Your task to perform on an android device: Toggle the flashlight Image 0: 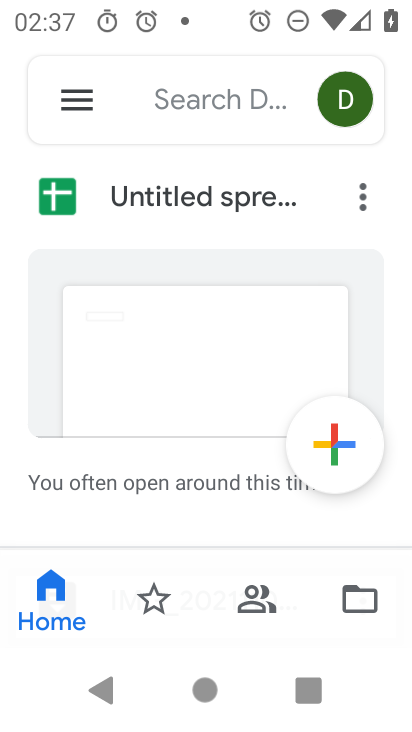
Step 0: press home button
Your task to perform on an android device: Toggle the flashlight Image 1: 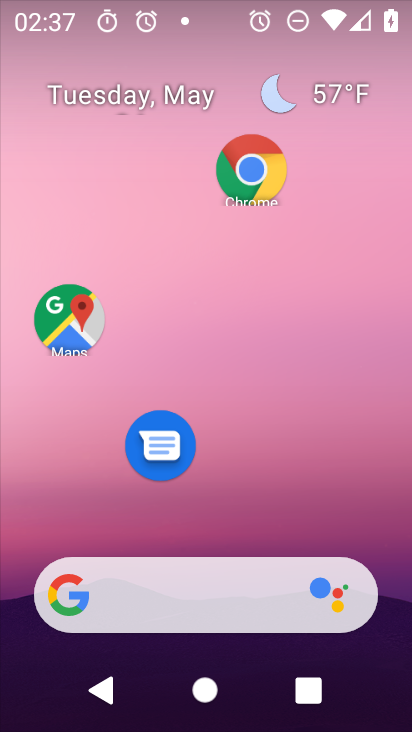
Step 1: drag from (224, 709) to (213, 107)
Your task to perform on an android device: Toggle the flashlight Image 2: 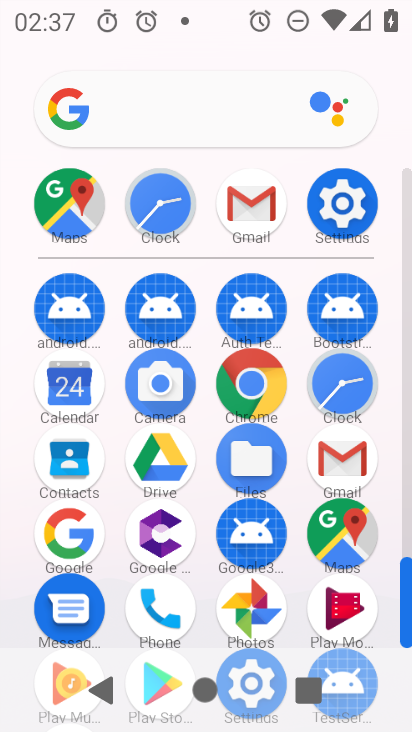
Step 2: click (354, 203)
Your task to perform on an android device: Toggle the flashlight Image 3: 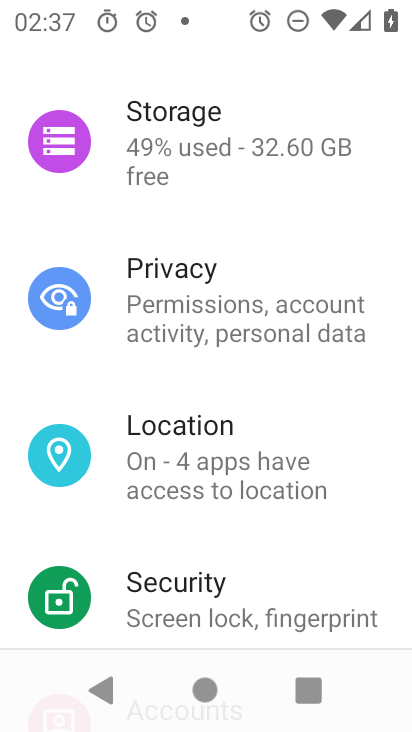
Step 3: task complete